Your task to perform on an android device: Go to Google Image 0: 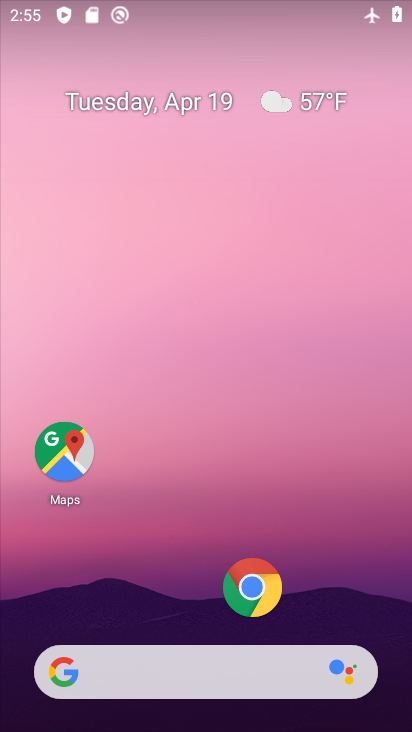
Step 0: click (164, 658)
Your task to perform on an android device: Go to Google Image 1: 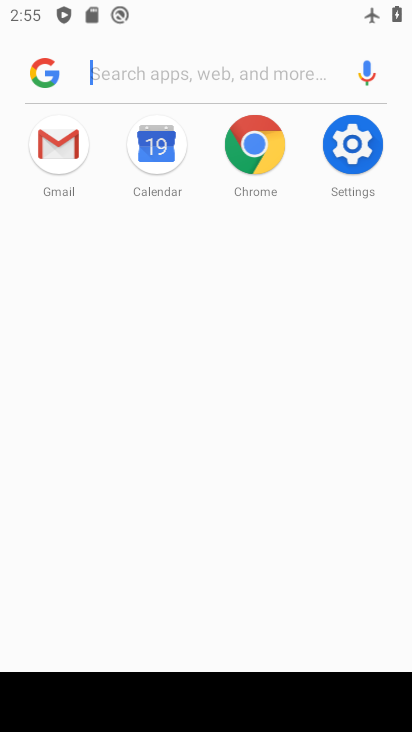
Step 1: click (32, 67)
Your task to perform on an android device: Go to Google Image 2: 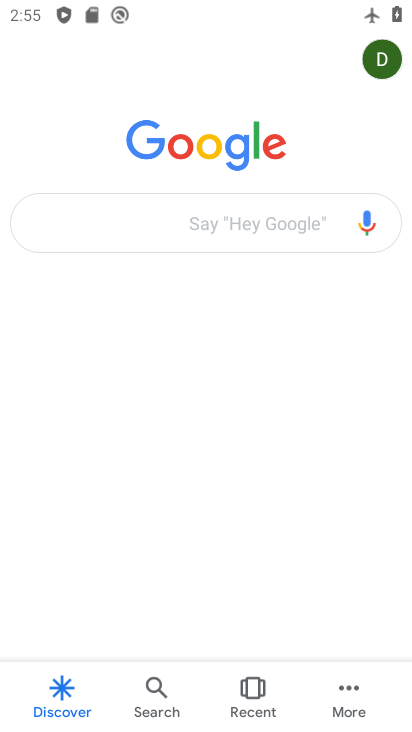
Step 2: task complete